Your task to perform on an android device: Do I have any events today? Image 0: 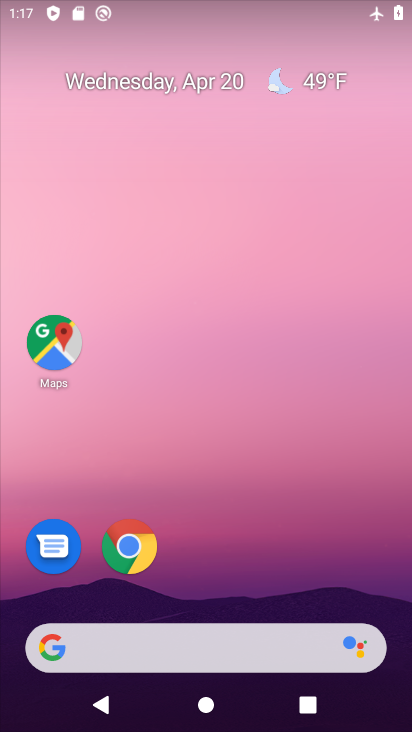
Step 0: drag from (134, 598) to (247, 52)
Your task to perform on an android device: Do I have any events today? Image 1: 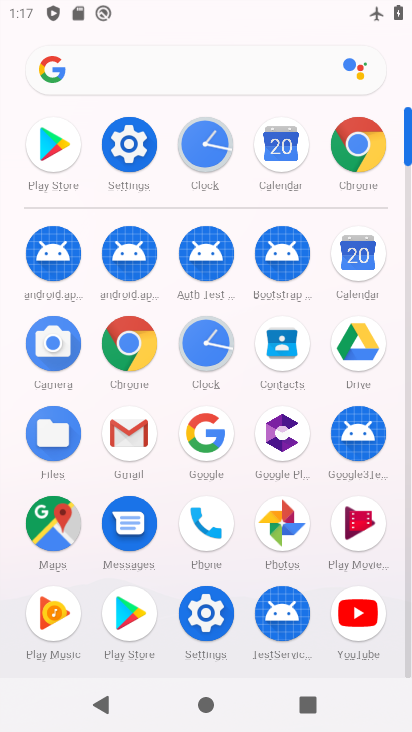
Step 1: click (355, 248)
Your task to perform on an android device: Do I have any events today? Image 2: 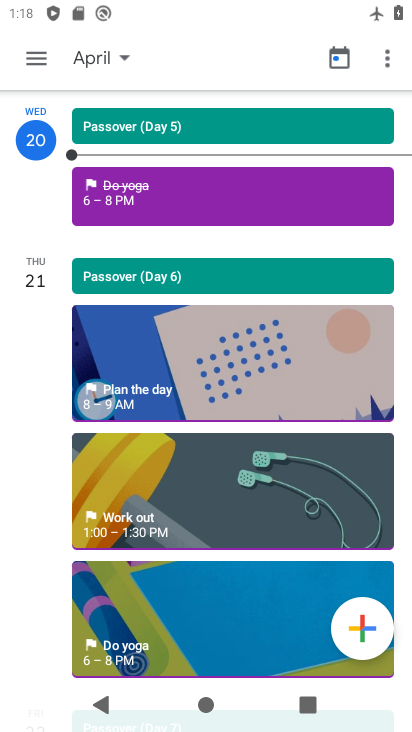
Step 2: click (184, 190)
Your task to perform on an android device: Do I have any events today? Image 3: 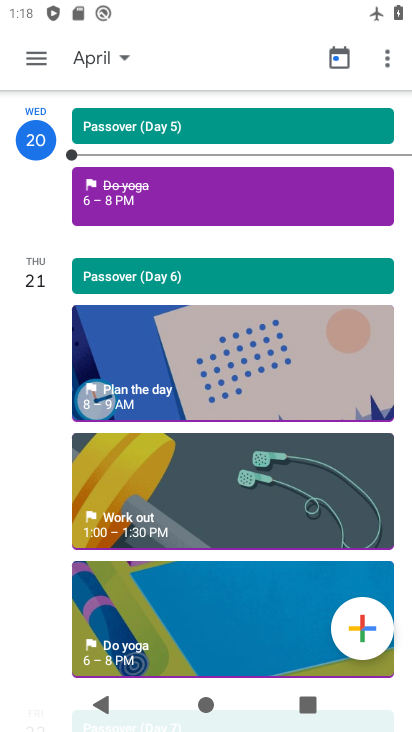
Step 3: click (114, 190)
Your task to perform on an android device: Do I have any events today? Image 4: 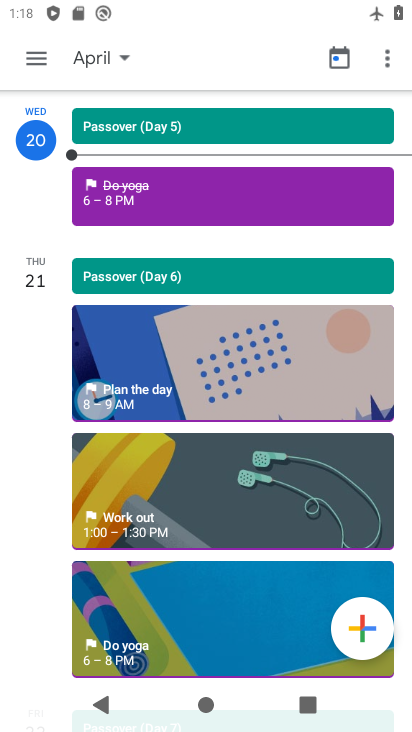
Step 4: task complete